Your task to perform on an android device: Set the phone to "Do not disturb". Image 0: 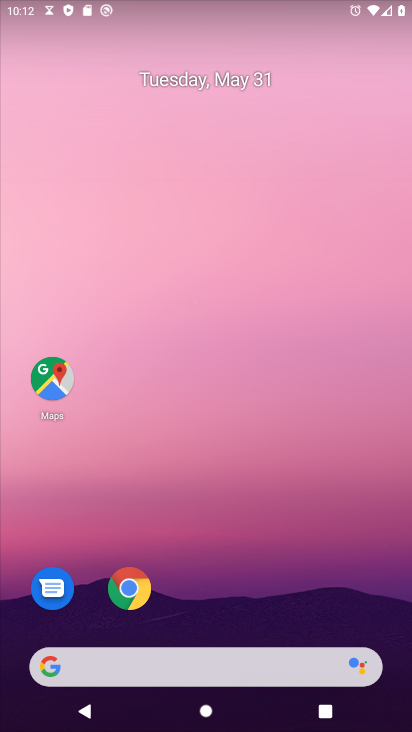
Step 0: drag from (258, 571) to (257, 87)
Your task to perform on an android device: Set the phone to "Do not disturb". Image 1: 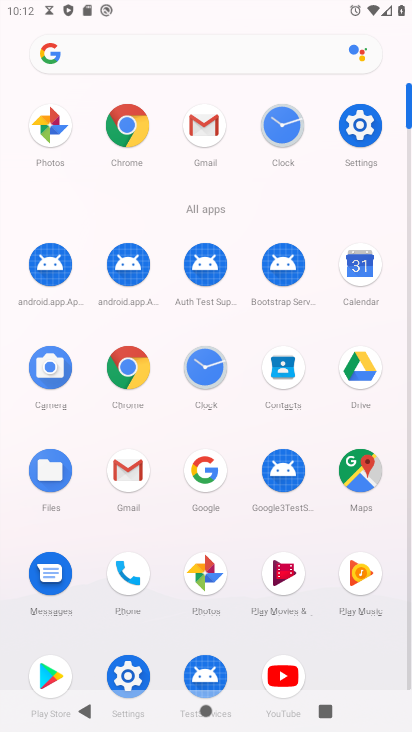
Step 1: click (361, 126)
Your task to perform on an android device: Set the phone to "Do not disturb". Image 2: 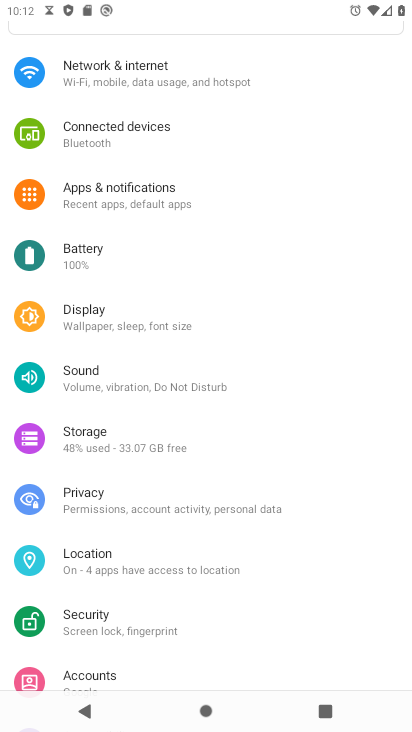
Step 2: click (140, 386)
Your task to perform on an android device: Set the phone to "Do not disturb". Image 3: 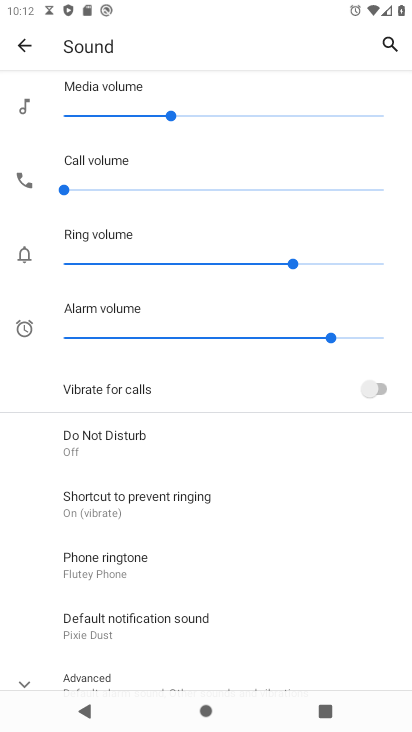
Step 3: click (137, 429)
Your task to perform on an android device: Set the phone to "Do not disturb". Image 4: 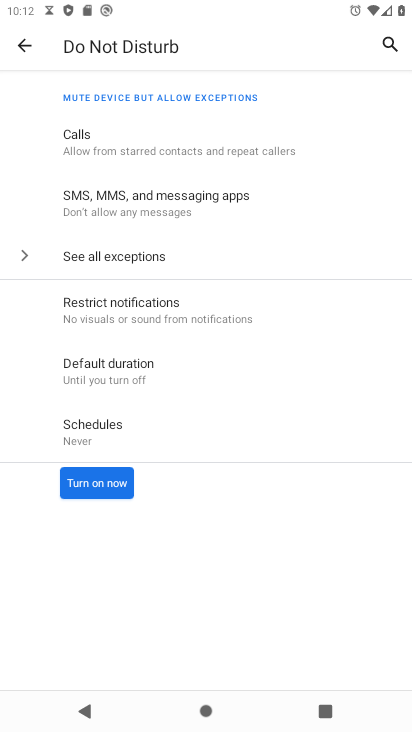
Step 4: click (105, 472)
Your task to perform on an android device: Set the phone to "Do not disturb". Image 5: 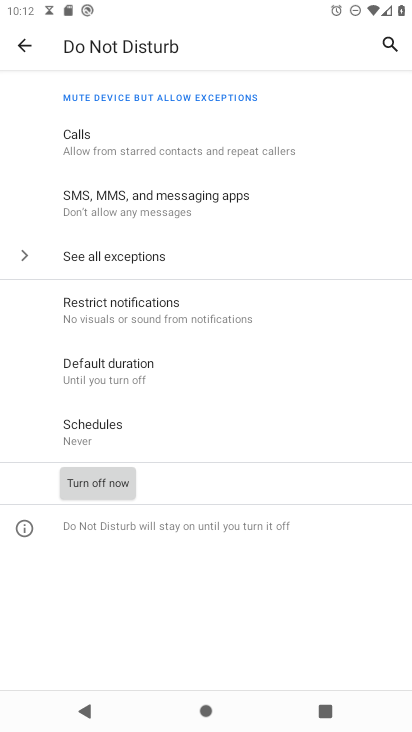
Step 5: task complete